Your task to perform on an android device: turn off sleep mode Image 0: 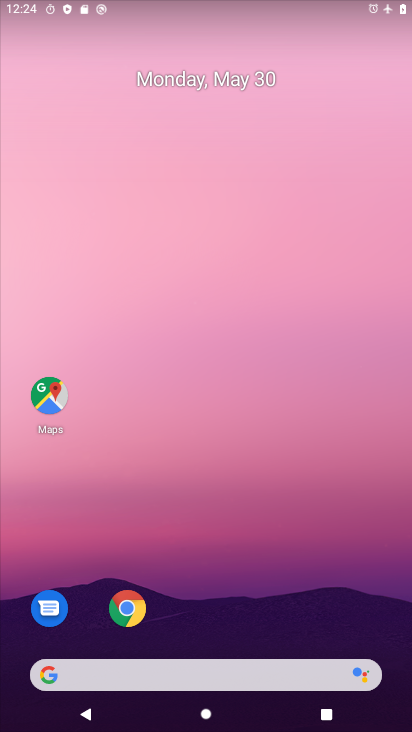
Step 0: drag from (225, 651) to (167, 10)
Your task to perform on an android device: turn off sleep mode Image 1: 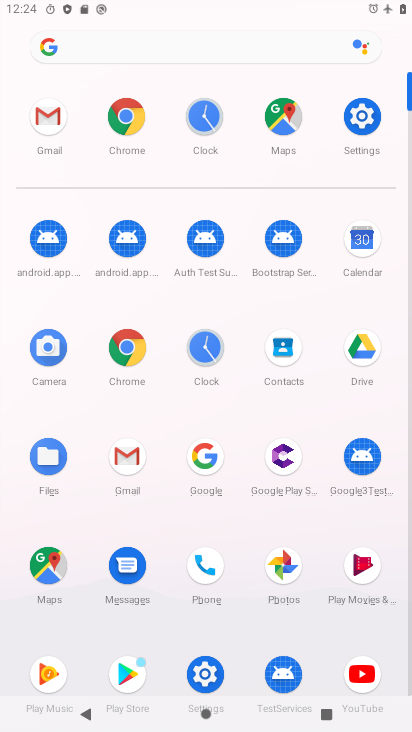
Step 1: click (355, 118)
Your task to perform on an android device: turn off sleep mode Image 2: 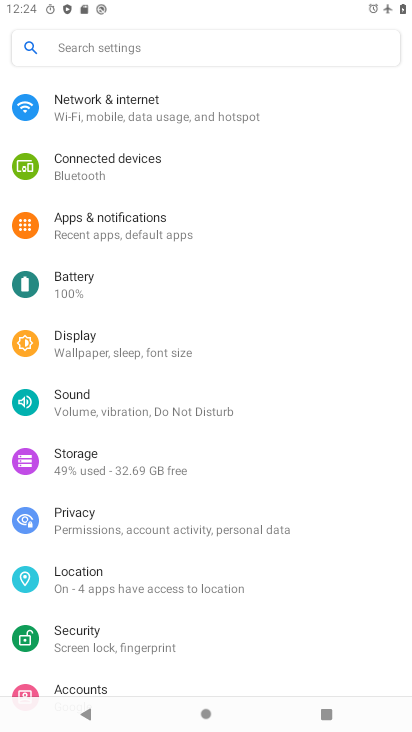
Step 2: click (96, 348)
Your task to perform on an android device: turn off sleep mode Image 3: 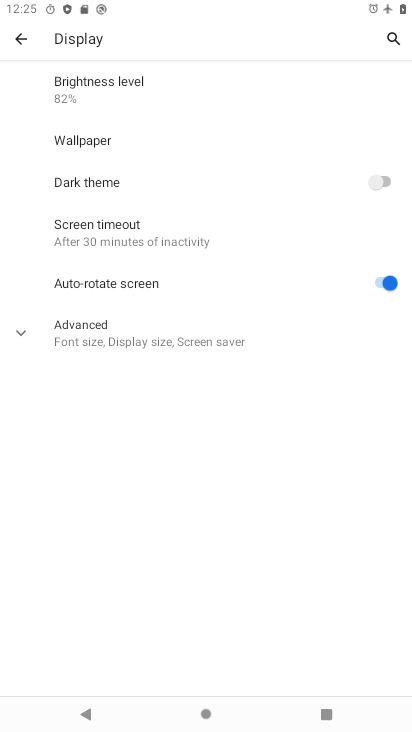
Step 3: click (88, 335)
Your task to perform on an android device: turn off sleep mode Image 4: 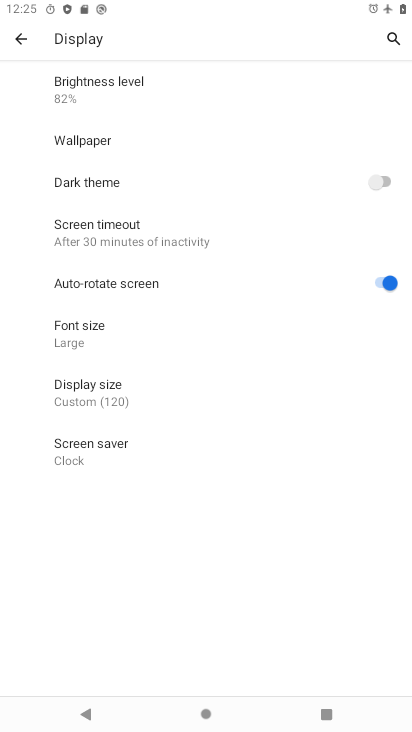
Step 4: task complete